Your task to perform on an android device: Open wifi settings Image 0: 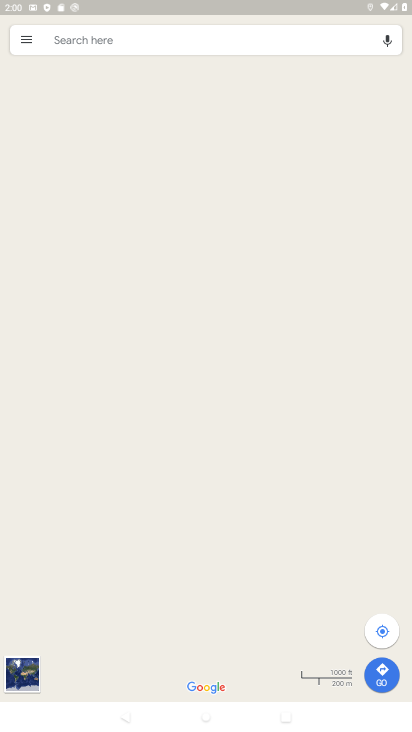
Step 0: press home button
Your task to perform on an android device: Open wifi settings Image 1: 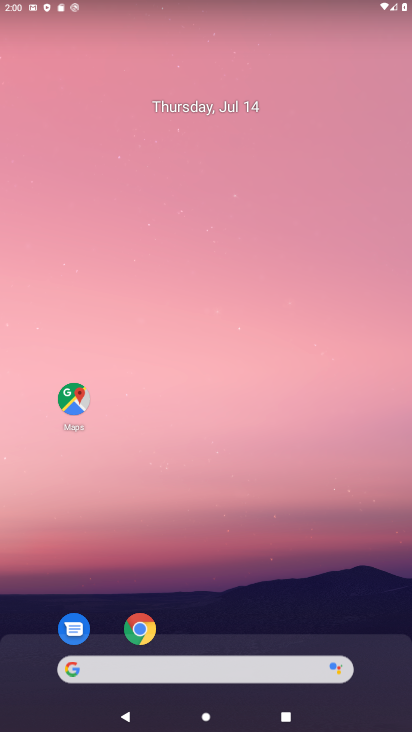
Step 1: drag from (197, 548) to (236, 161)
Your task to perform on an android device: Open wifi settings Image 2: 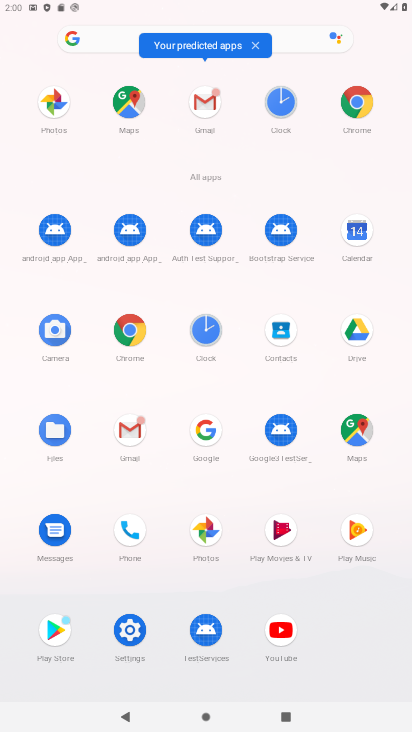
Step 2: click (130, 642)
Your task to perform on an android device: Open wifi settings Image 3: 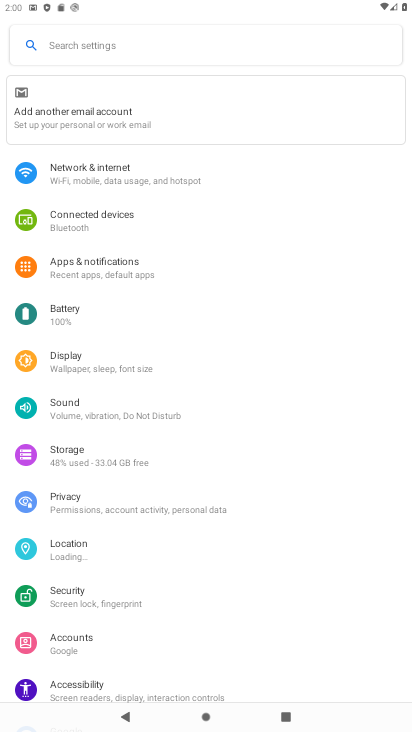
Step 3: click (146, 171)
Your task to perform on an android device: Open wifi settings Image 4: 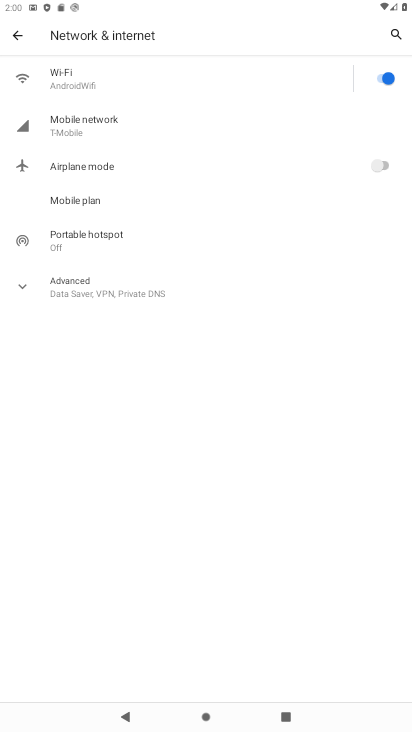
Step 4: click (100, 90)
Your task to perform on an android device: Open wifi settings Image 5: 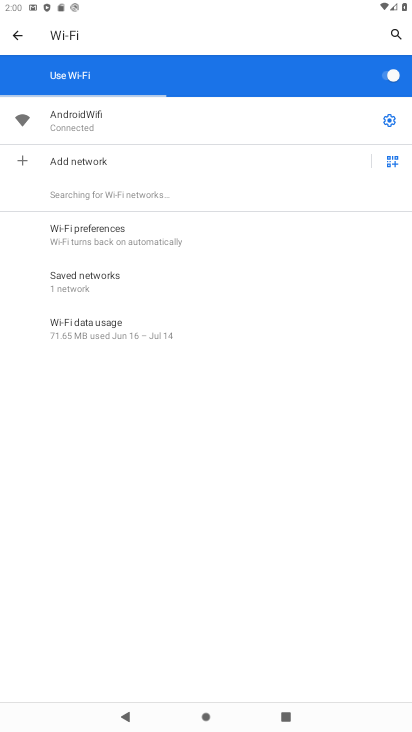
Step 5: task complete